Your task to perform on an android device: add a contact Image 0: 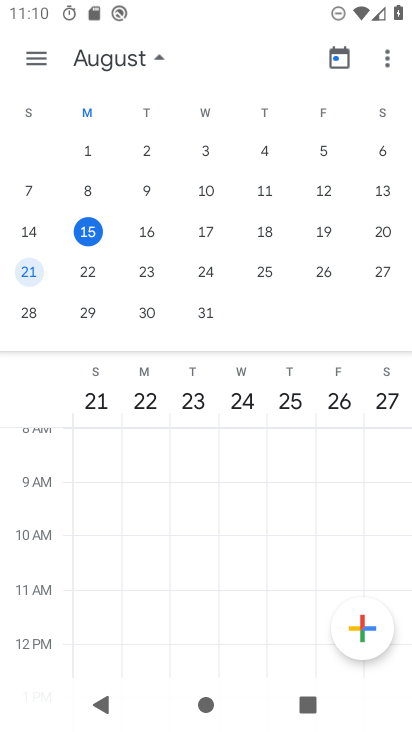
Step 0: press home button
Your task to perform on an android device: add a contact Image 1: 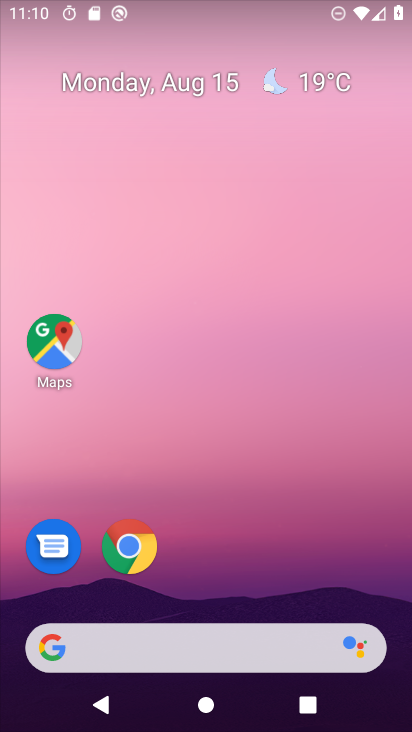
Step 1: drag from (215, 571) to (212, 143)
Your task to perform on an android device: add a contact Image 2: 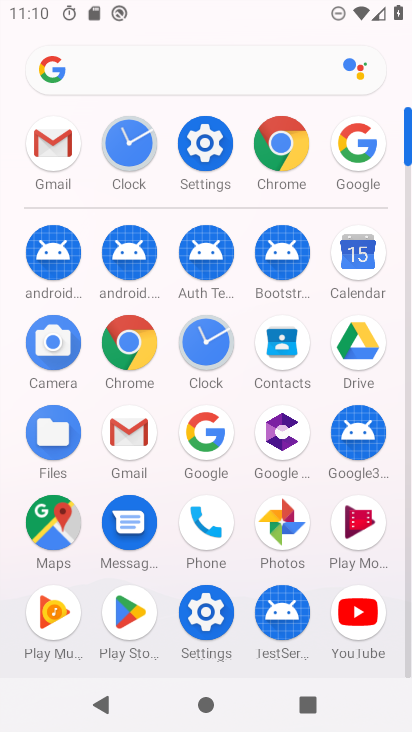
Step 2: click (281, 340)
Your task to perform on an android device: add a contact Image 3: 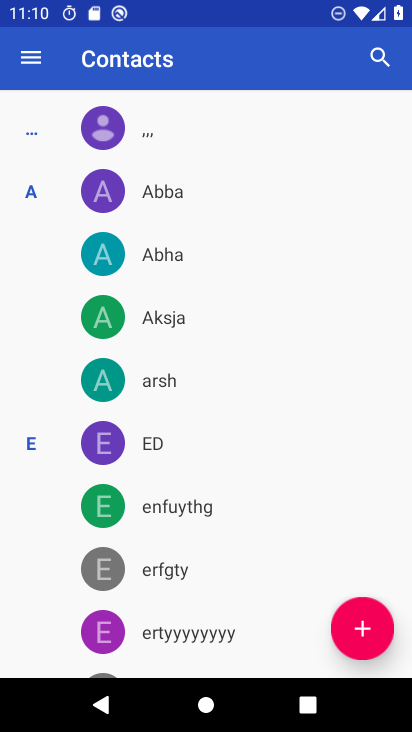
Step 3: click (368, 626)
Your task to perform on an android device: add a contact Image 4: 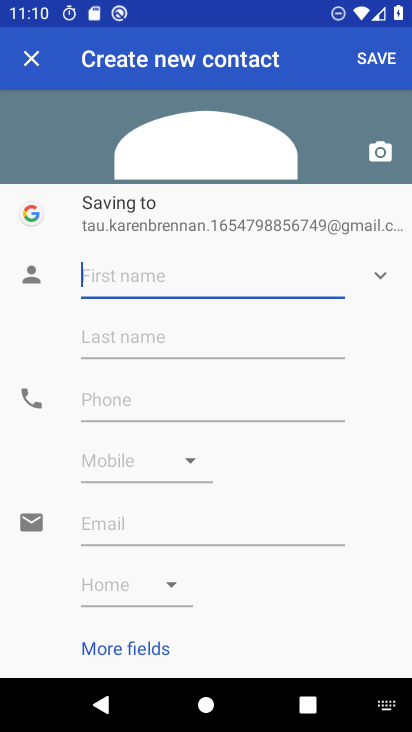
Step 4: type "nmmn"
Your task to perform on an android device: add a contact Image 5: 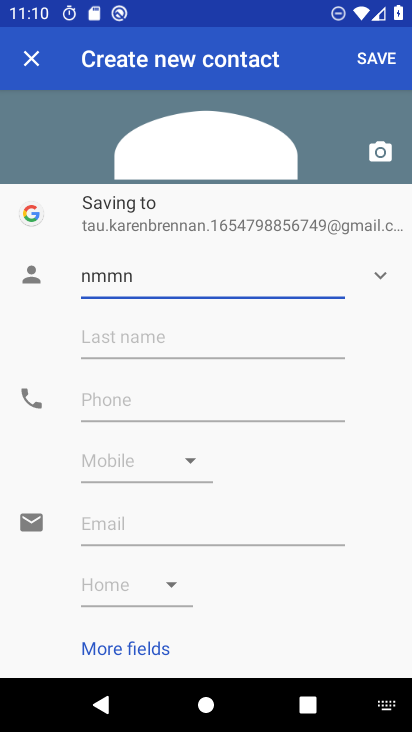
Step 5: click (258, 396)
Your task to perform on an android device: add a contact Image 6: 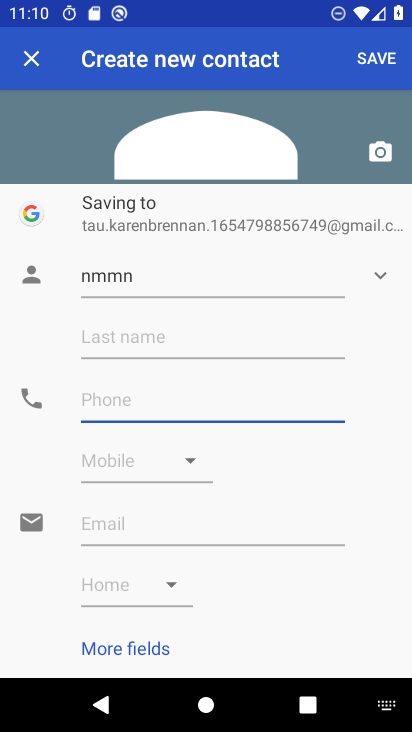
Step 6: type "78787"
Your task to perform on an android device: add a contact Image 7: 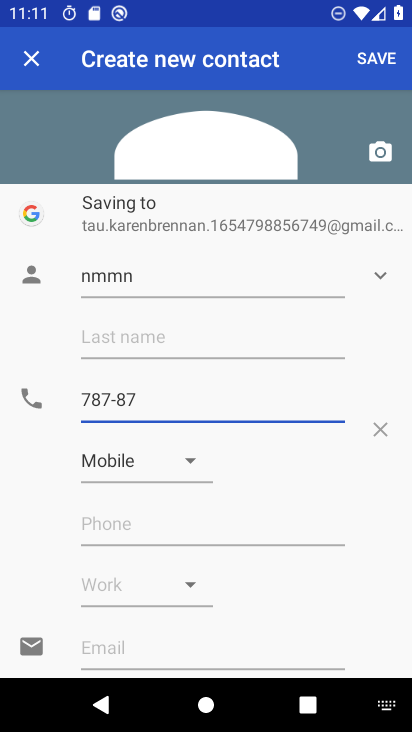
Step 7: click (373, 52)
Your task to perform on an android device: add a contact Image 8: 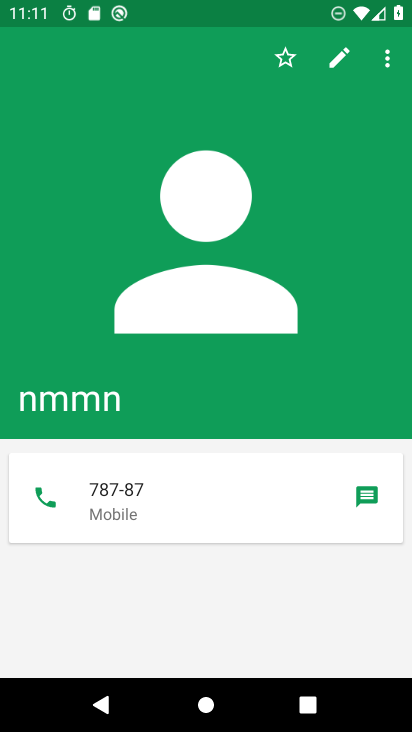
Step 8: task complete